Your task to perform on an android device: turn on translation in the chrome app Image 0: 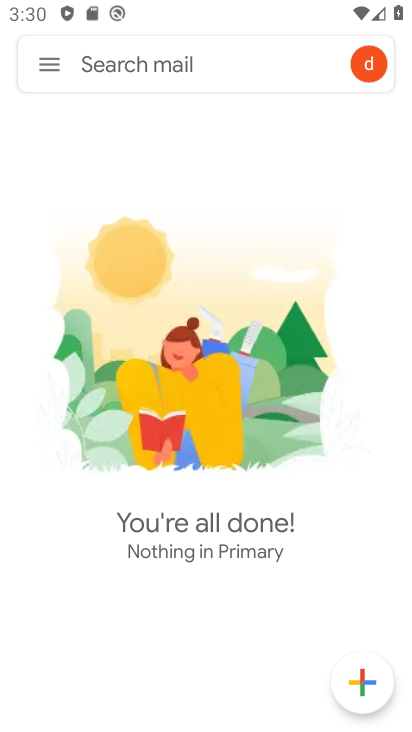
Step 0: click (52, 69)
Your task to perform on an android device: turn on translation in the chrome app Image 1: 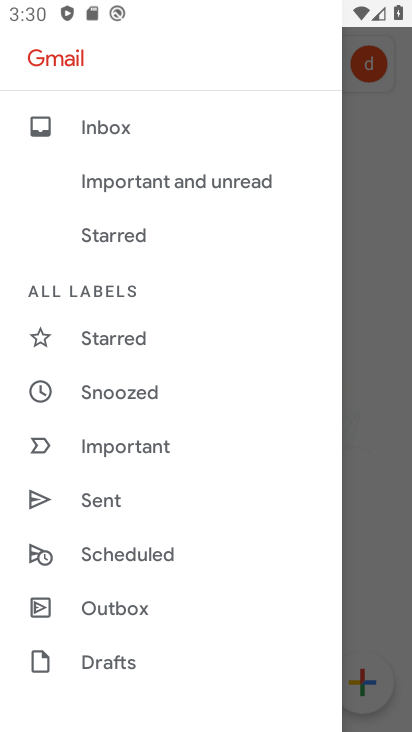
Step 1: press home button
Your task to perform on an android device: turn on translation in the chrome app Image 2: 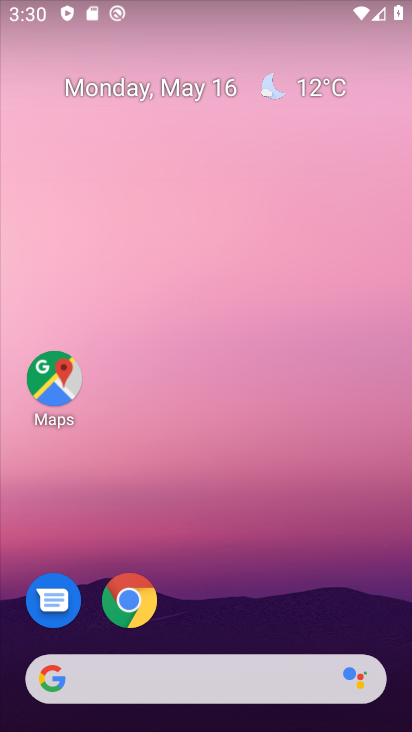
Step 2: drag from (205, 655) to (180, 276)
Your task to perform on an android device: turn on translation in the chrome app Image 3: 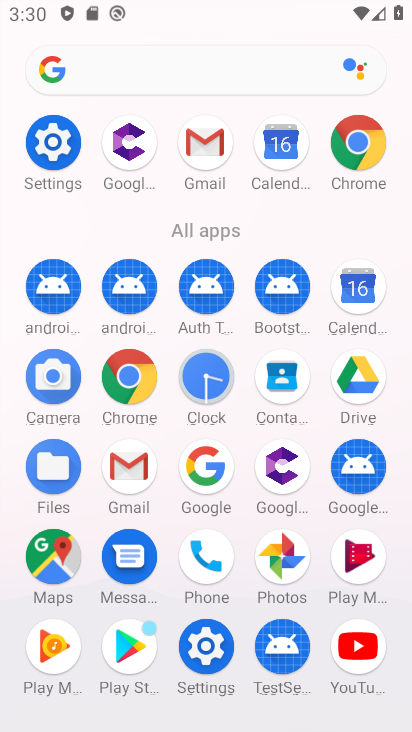
Step 3: click (362, 150)
Your task to perform on an android device: turn on translation in the chrome app Image 4: 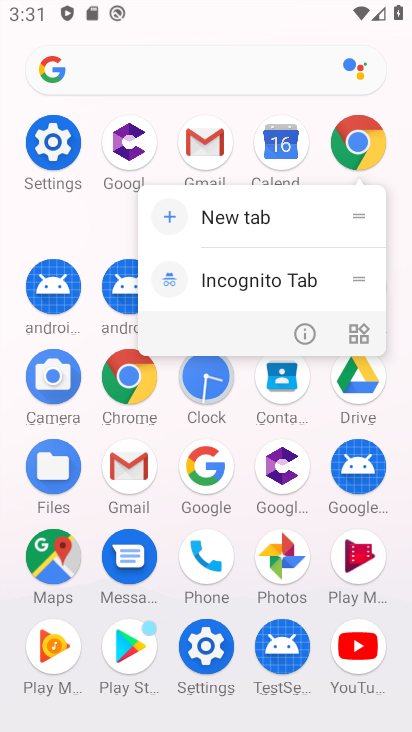
Step 4: click (353, 155)
Your task to perform on an android device: turn on translation in the chrome app Image 5: 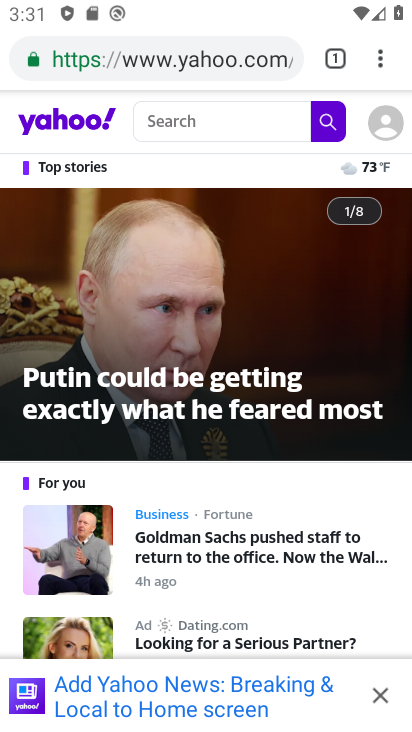
Step 5: click (379, 64)
Your task to perform on an android device: turn on translation in the chrome app Image 6: 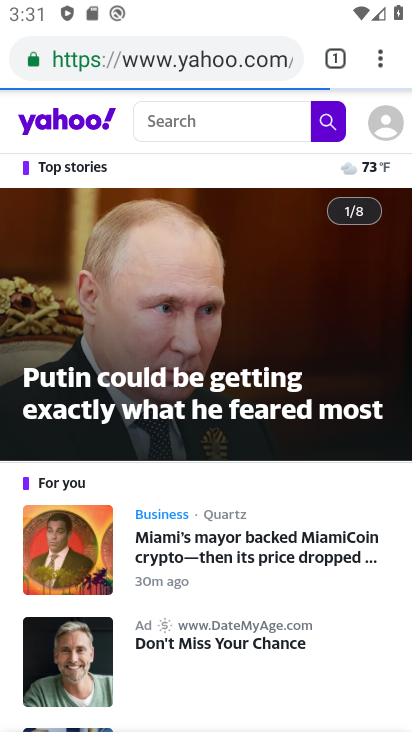
Step 6: click (337, 63)
Your task to perform on an android device: turn on translation in the chrome app Image 7: 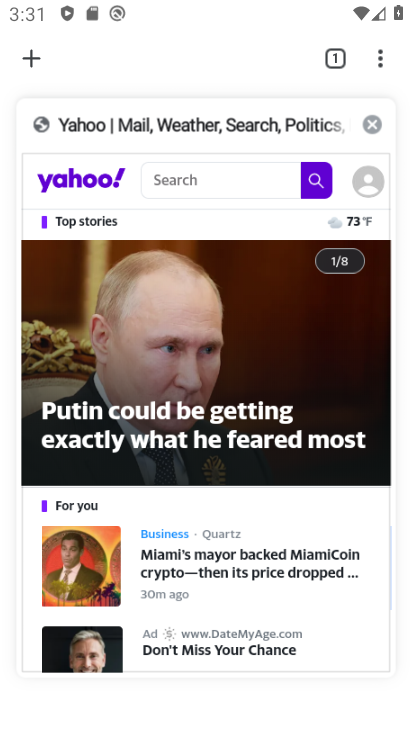
Step 7: click (374, 119)
Your task to perform on an android device: turn on translation in the chrome app Image 8: 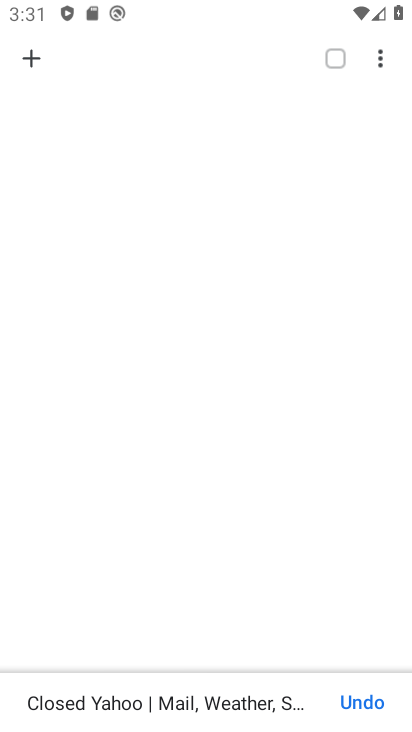
Step 8: click (30, 62)
Your task to perform on an android device: turn on translation in the chrome app Image 9: 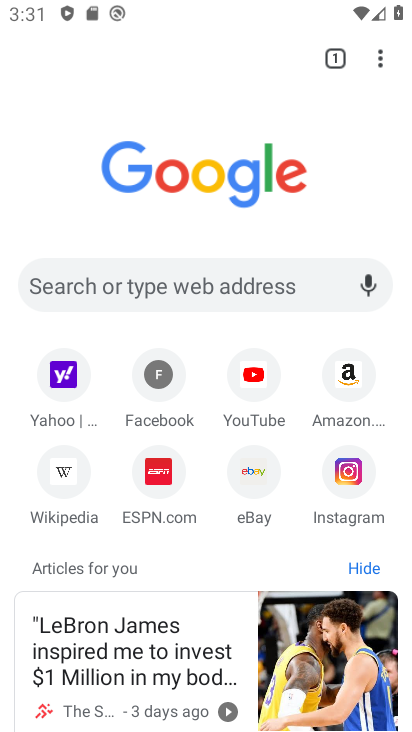
Step 9: click (379, 69)
Your task to perform on an android device: turn on translation in the chrome app Image 10: 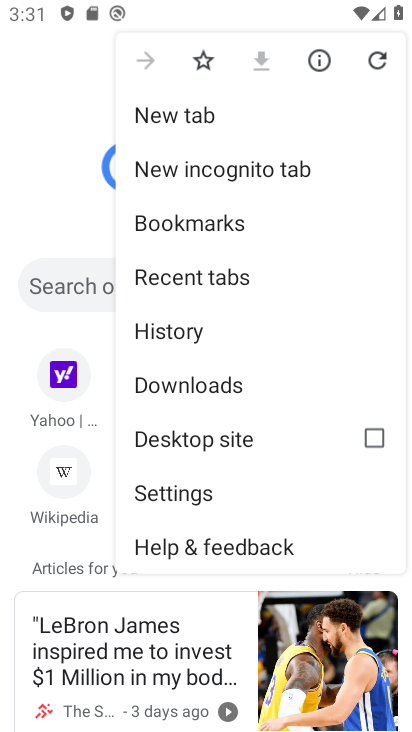
Step 10: click (178, 494)
Your task to perform on an android device: turn on translation in the chrome app Image 11: 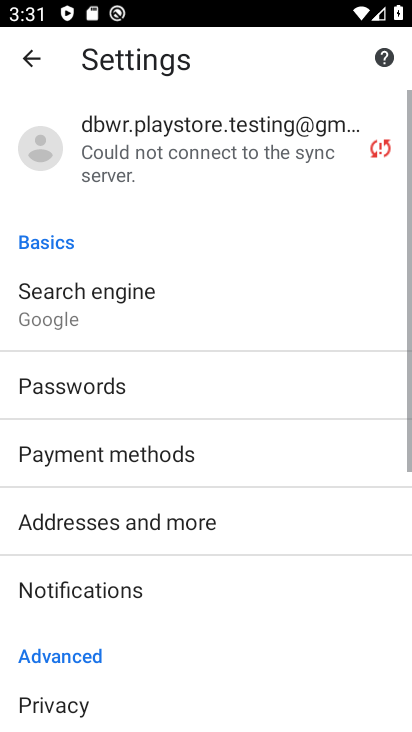
Step 11: drag from (143, 583) to (139, 345)
Your task to perform on an android device: turn on translation in the chrome app Image 12: 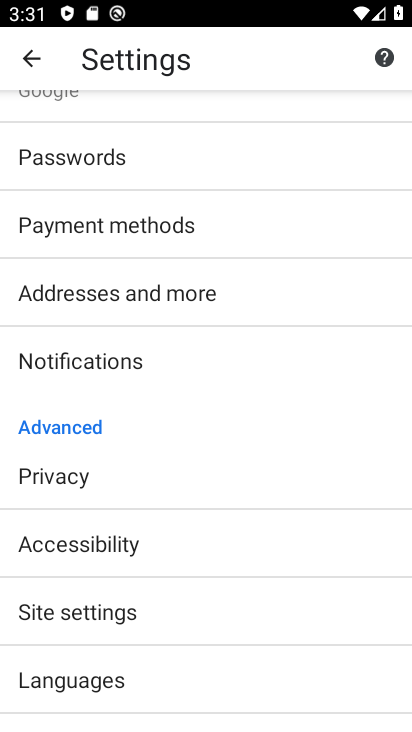
Step 12: drag from (78, 687) to (92, 409)
Your task to perform on an android device: turn on translation in the chrome app Image 13: 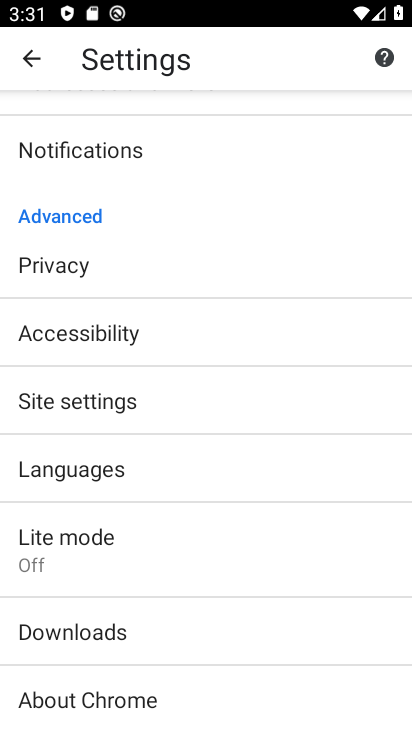
Step 13: click (82, 477)
Your task to perform on an android device: turn on translation in the chrome app Image 14: 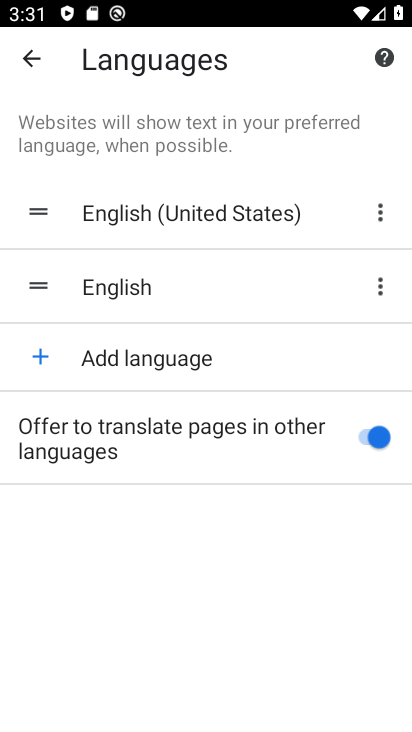
Step 14: task complete